Your task to perform on an android device: Go to settings Image 0: 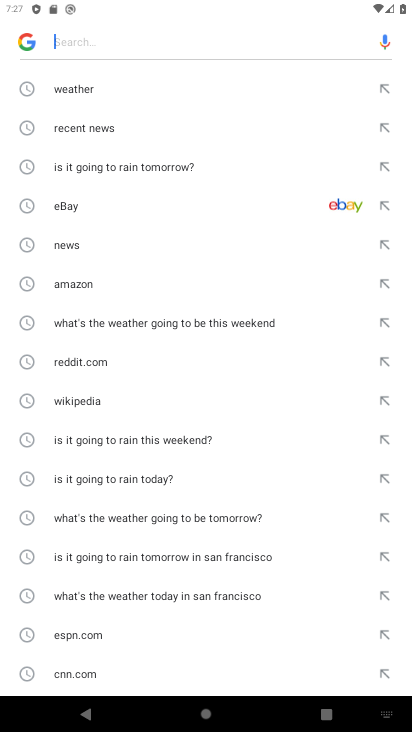
Step 0: press home button
Your task to perform on an android device: Go to settings Image 1: 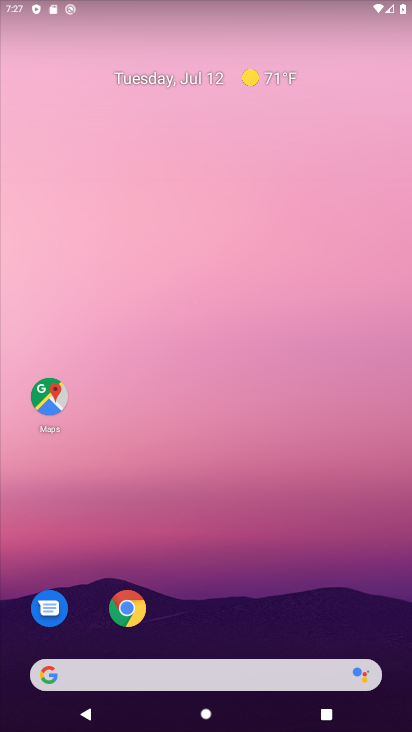
Step 1: drag from (269, 548) to (205, 30)
Your task to perform on an android device: Go to settings Image 2: 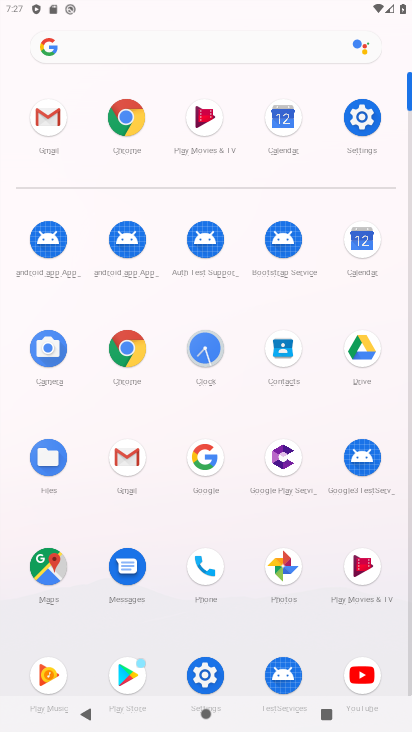
Step 2: click (367, 123)
Your task to perform on an android device: Go to settings Image 3: 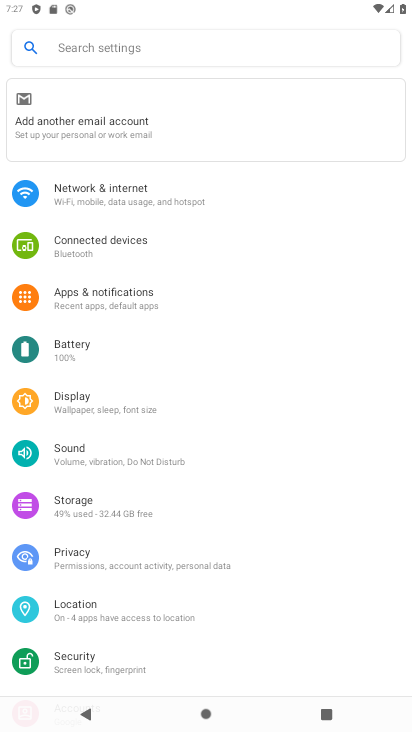
Step 3: task complete